Your task to perform on an android device: Open the phone app and click the voicemail tab. Image 0: 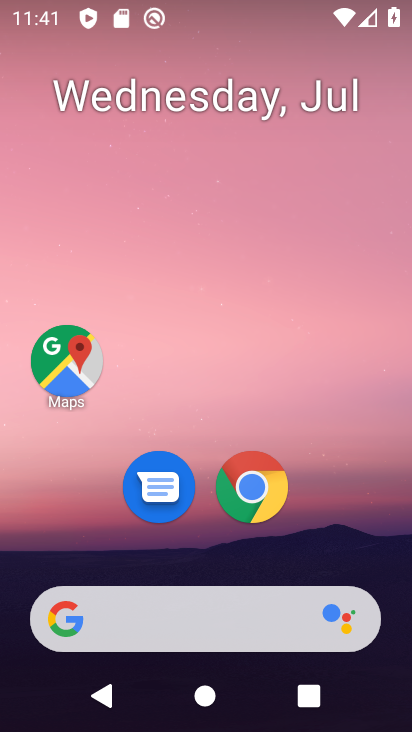
Step 0: drag from (173, 584) to (283, 19)
Your task to perform on an android device: Open the phone app and click the voicemail tab. Image 1: 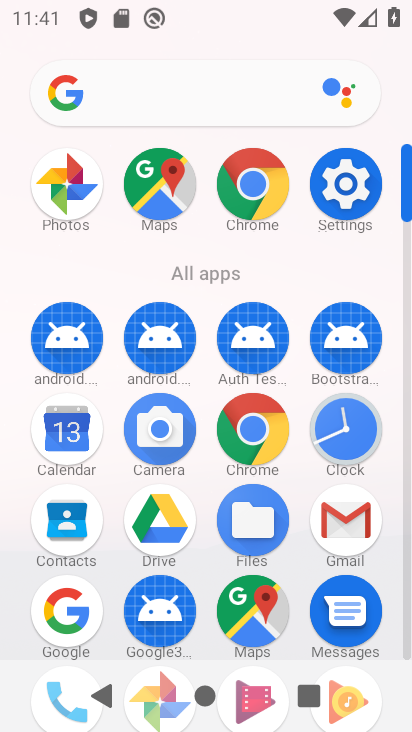
Step 1: drag from (191, 474) to (192, 132)
Your task to perform on an android device: Open the phone app and click the voicemail tab. Image 2: 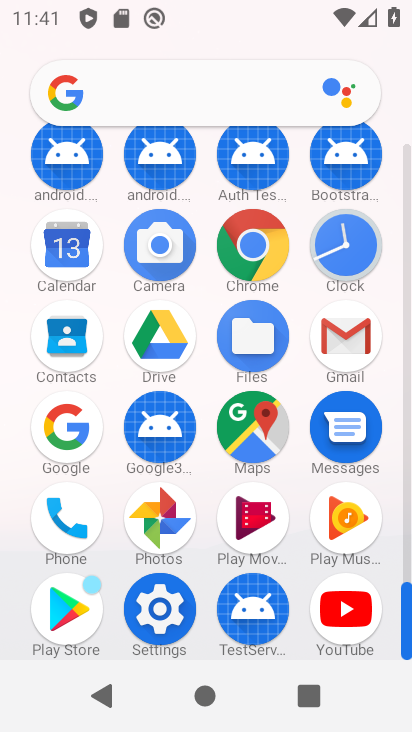
Step 2: click (90, 525)
Your task to perform on an android device: Open the phone app and click the voicemail tab. Image 3: 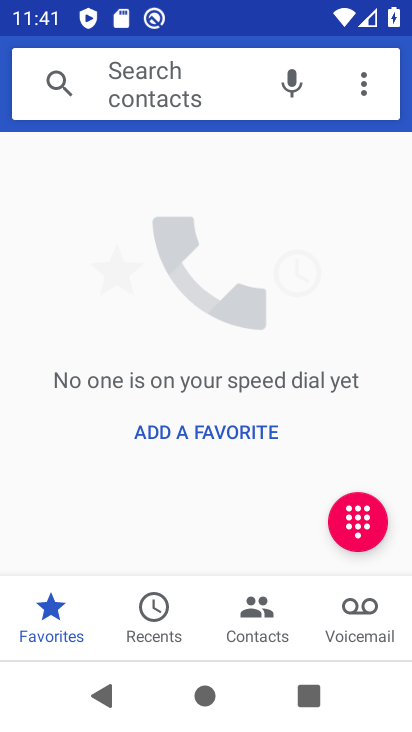
Step 3: click (363, 621)
Your task to perform on an android device: Open the phone app and click the voicemail tab. Image 4: 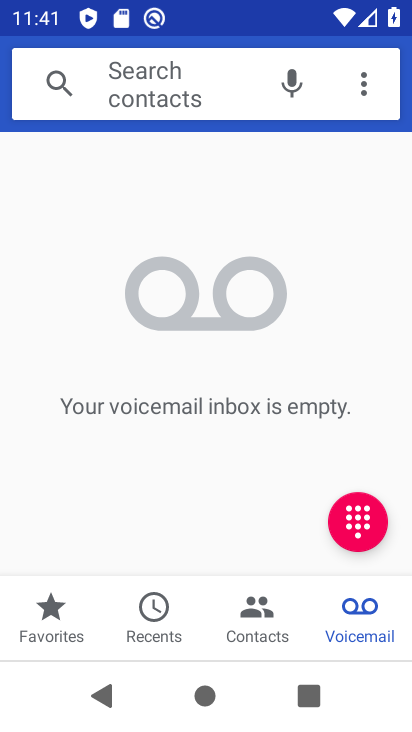
Step 4: click (369, 628)
Your task to perform on an android device: Open the phone app and click the voicemail tab. Image 5: 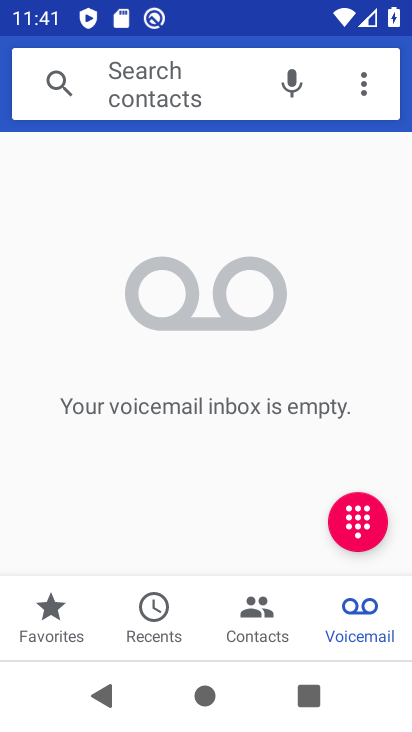
Step 5: task complete